Your task to perform on an android device: What's the weather today? Image 0: 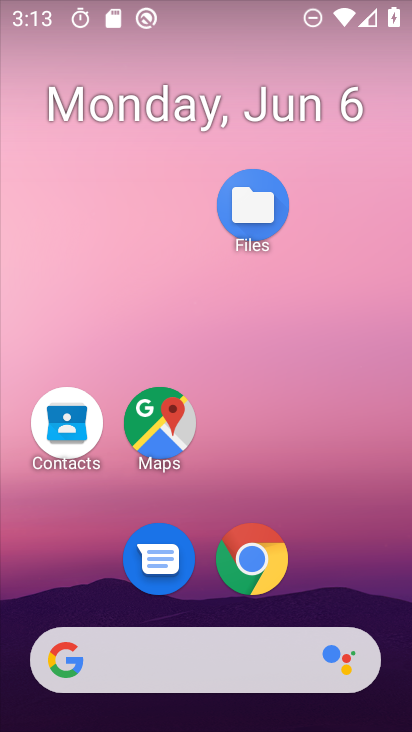
Step 0: drag from (252, 559) to (333, 0)
Your task to perform on an android device: What's the weather today? Image 1: 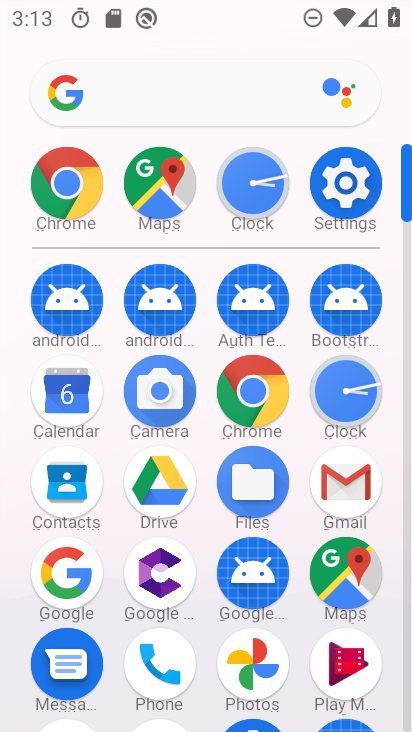
Step 1: click (59, 572)
Your task to perform on an android device: What's the weather today? Image 2: 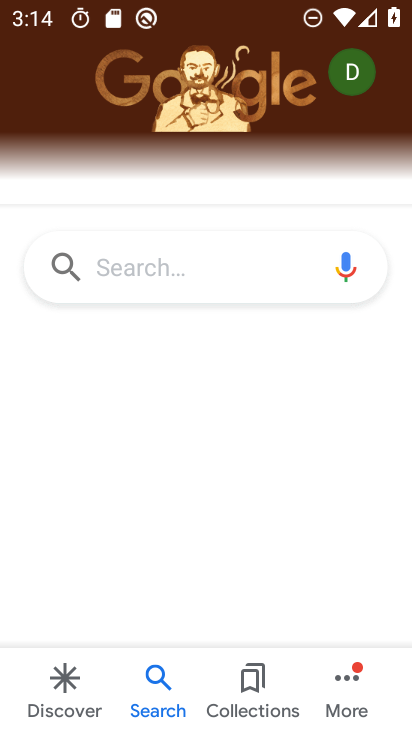
Step 2: click (152, 262)
Your task to perform on an android device: What's the weather today? Image 3: 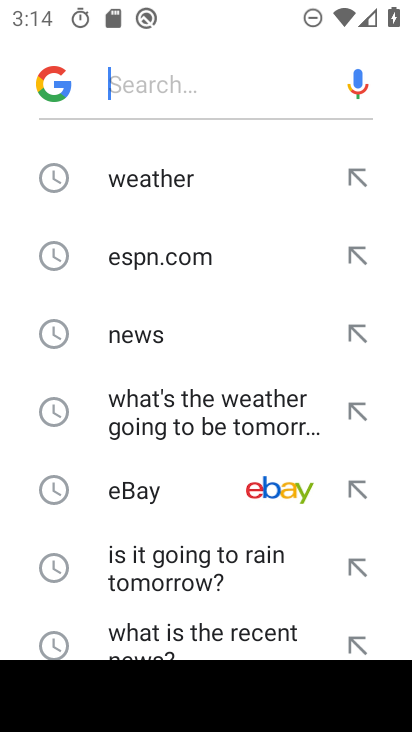
Step 3: click (193, 181)
Your task to perform on an android device: What's the weather today? Image 4: 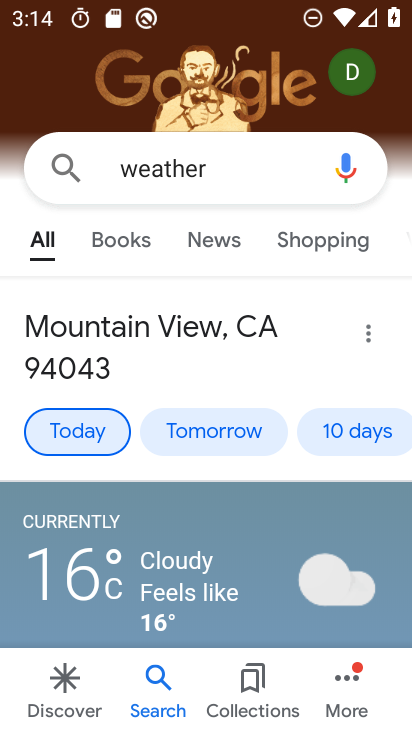
Step 4: task complete